Your task to perform on an android device: turn on location history Image 0: 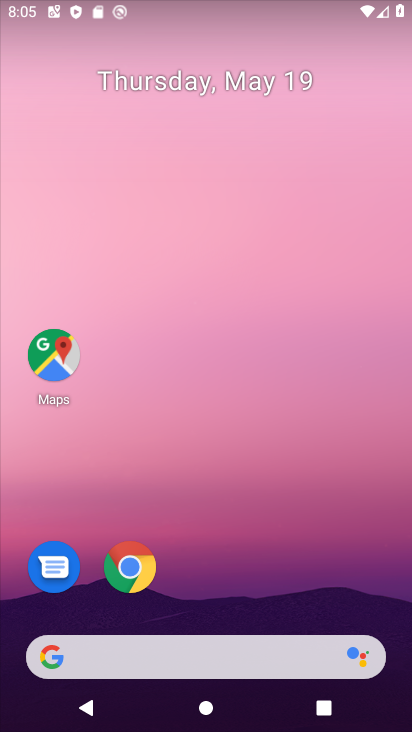
Step 0: drag from (190, 605) to (208, 70)
Your task to perform on an android device: turn on location history Image 1: 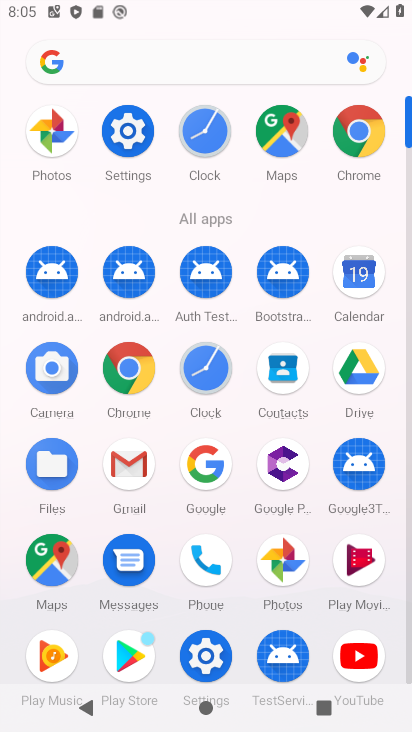
Step 1: click (115, 129)
Your task to perform on an android device: turn on location history Image 2: 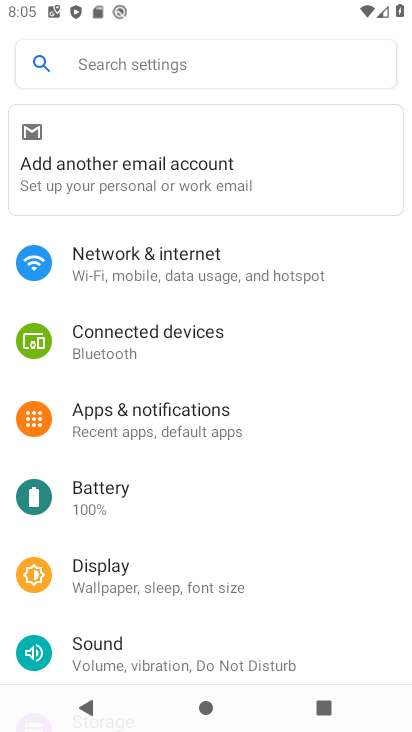
Step 2: drag from (109, 610) to (129, 254)
Your task to perform on an android device: turn on location history Image 3: 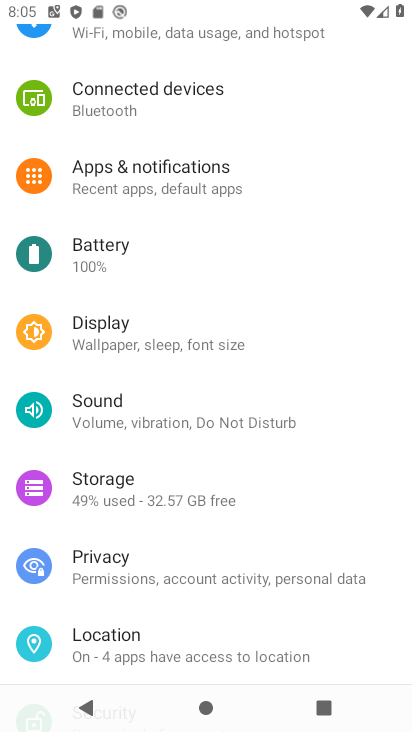
Step 3: click (120, 633)
Your task to perform on an android device: turn on location history Image 4: 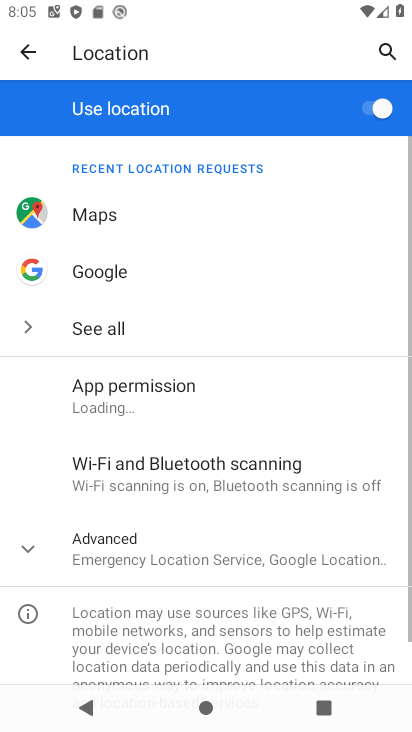
Step 4: drag from (120, 633) to (191, 113)
Your task to perform on an android device: turn on location history Image 5: 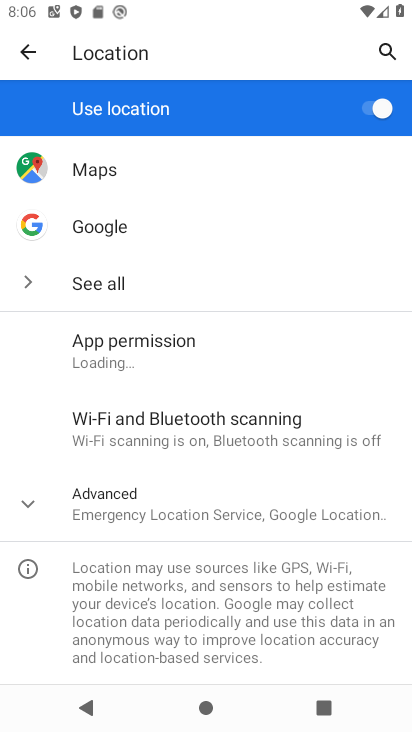
Step 5: click (112, 482)
Your task to perform on an android device: turn on location history Image 6: 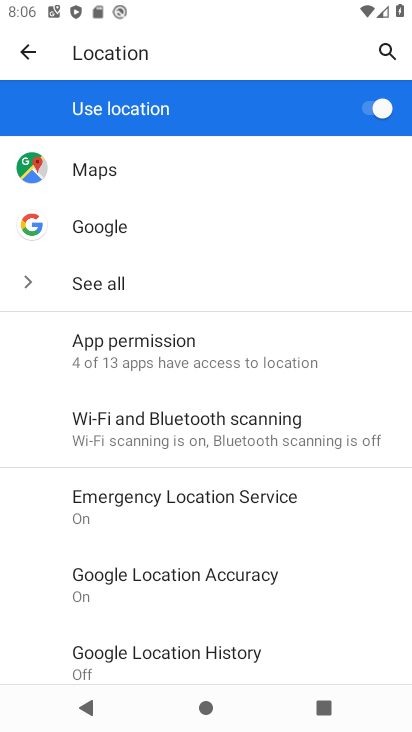
Step 6: click (210, 654)
Your task to perform on an android device: turn on location history Image 7: 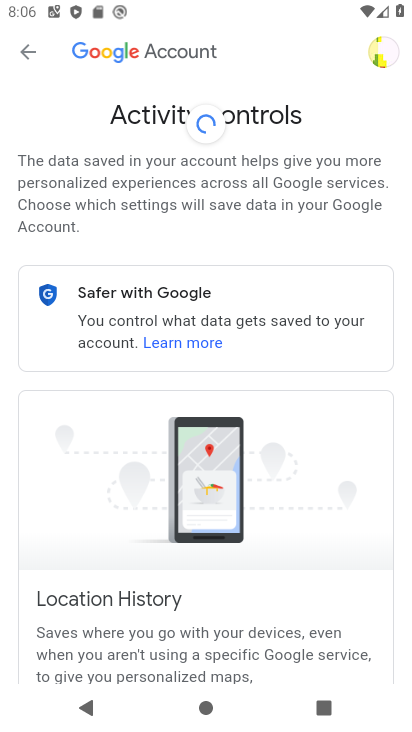
Step 7: task complete